Your task to perform on an android device: turn off wifi Image 0: 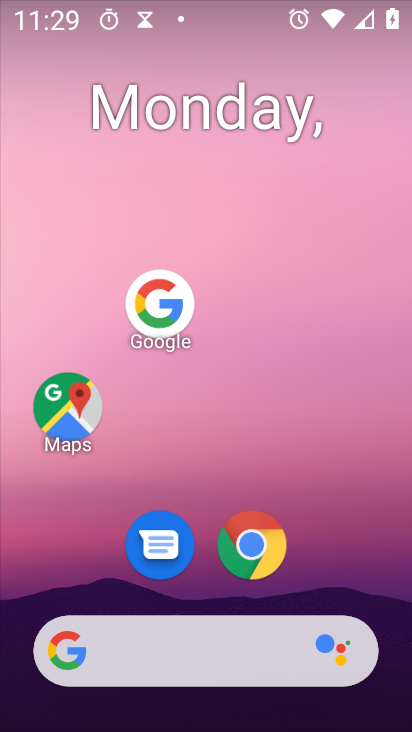
Step 0: press home button
Your task to perform on an android device: turn off wifi Image 1: 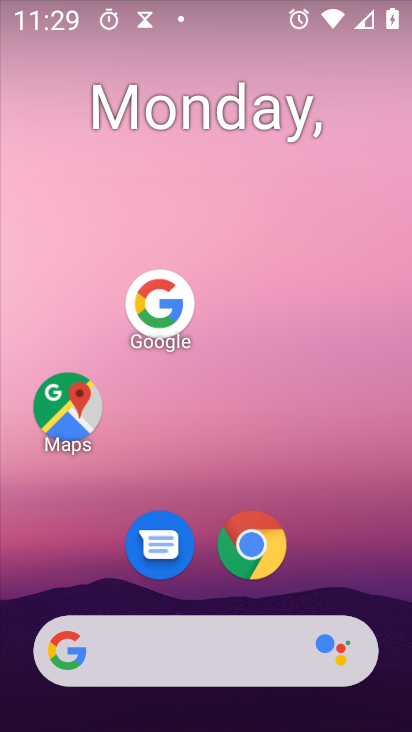
Step 1: drag from (172, 648) to (245, 165)
Your task to perform on an android device: turn off wifi Image 2: 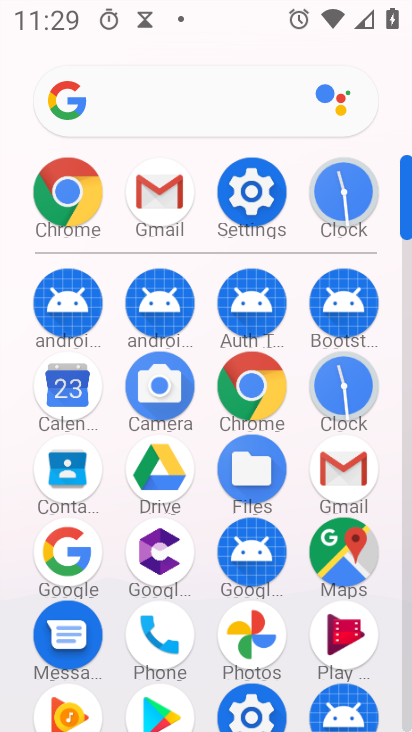
Step 2: click (256, 201)
Your task to perform on an android device: turn off wifi Image 3: 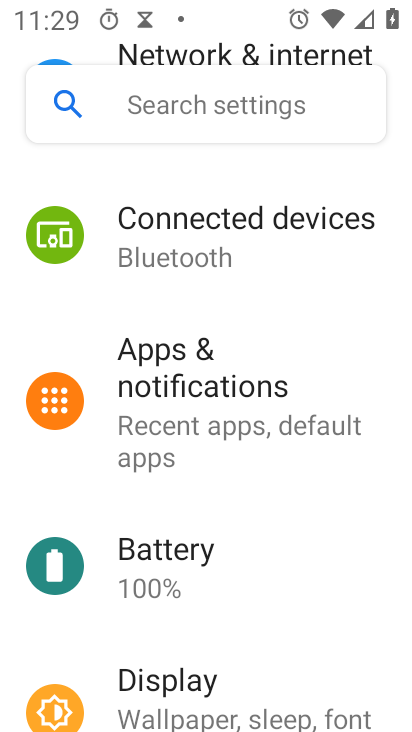
Step 3: drag from (282, 181) to (261, 567)
Your task to perform on an android device: turn off wifi Image 4: 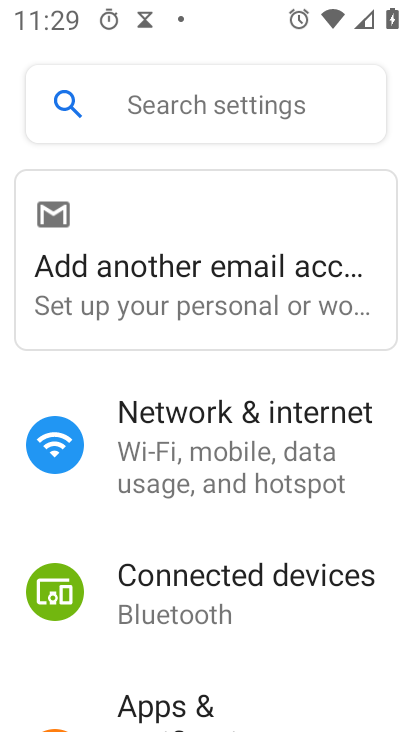
Step 4: click (258, 447)
Your task to perform on an android device: turn off wifi Image 5: 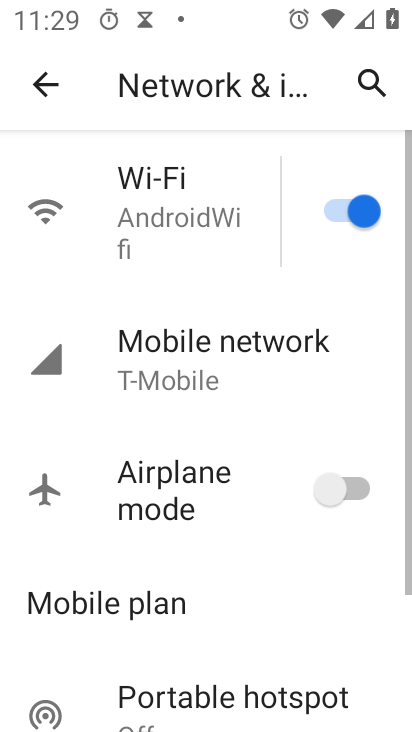
Step 5: click (344, 206)
Your task to perform on an android device: turn off wifi Image 6: 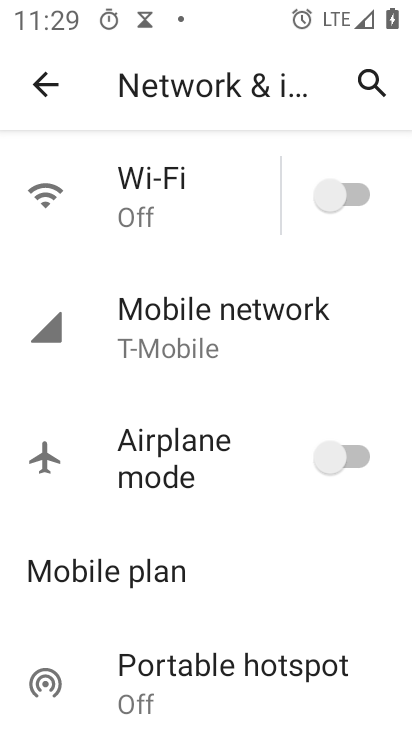
Step 6: task complete